Your task to perform on an android device: check battery use Image 0: 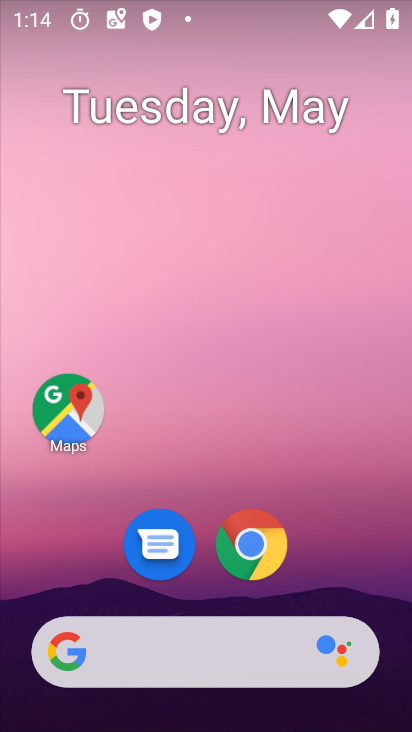
Step 0: drag from (128, 730) to (103, 46)
Your task to perform on an android device: check battery use Image 1: 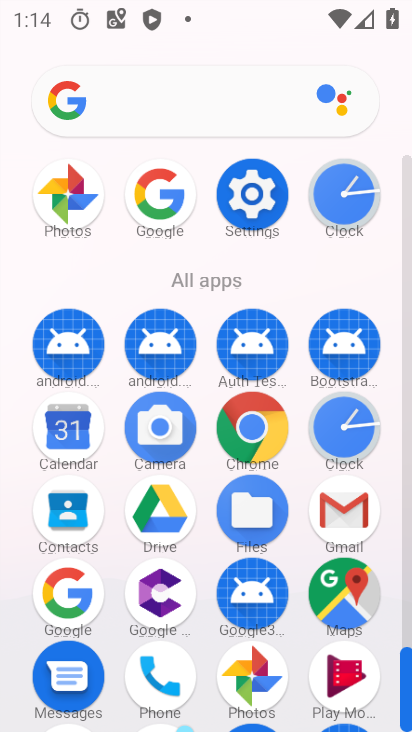
Step 1: click (262, 216)
Your task to perform on an android device: check battery use Image 2: 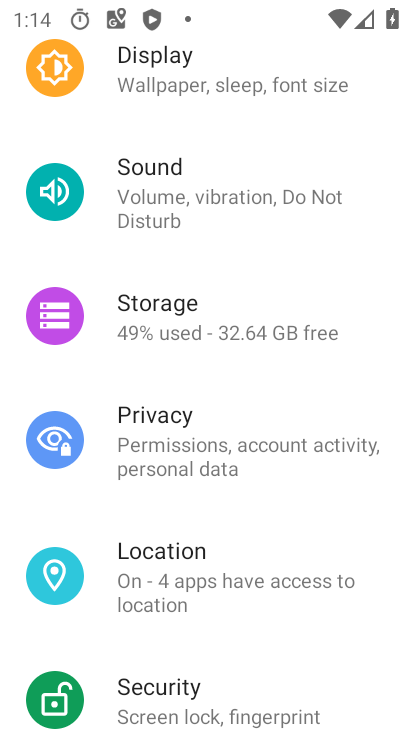
Step 2: drag from (217, 150) to (190, 635)
Your task to perform on an android device: check battery use Image 3: 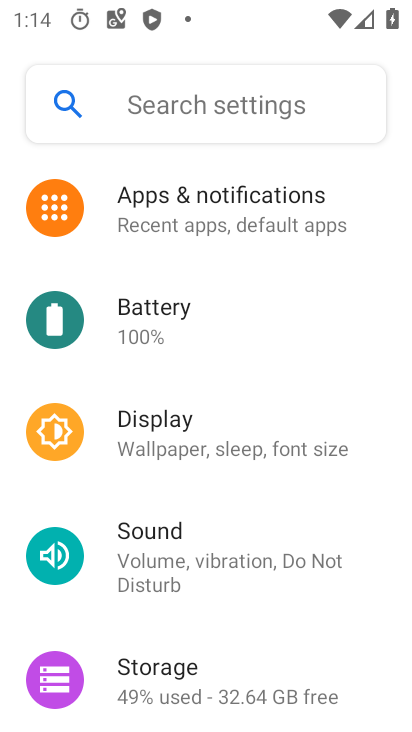
Step 3: click (173, 346)
Your task to perform on an android device: check battery use Image 4: 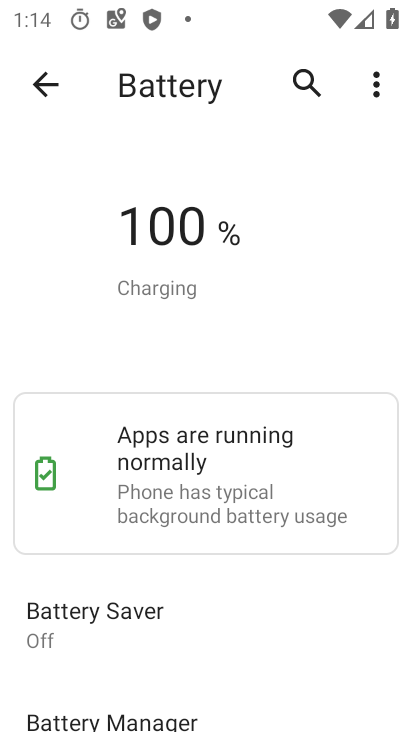
Step 4: click (375, 82)
Your task to perform on an android device: check battery use Image 5: 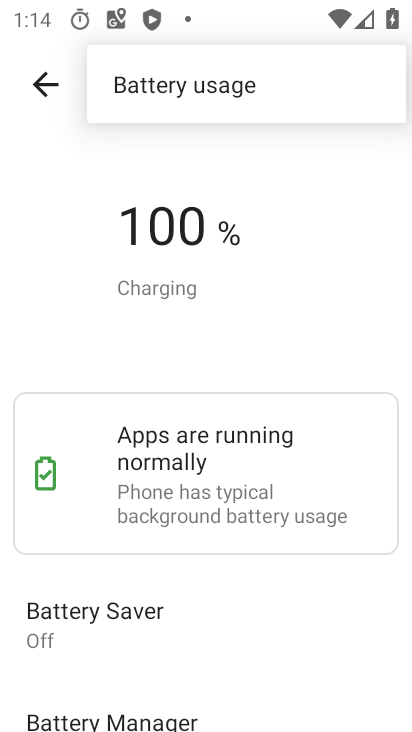
Step 5: click (229, 87)
Your task to perform on an android device: check battery use Image 6: 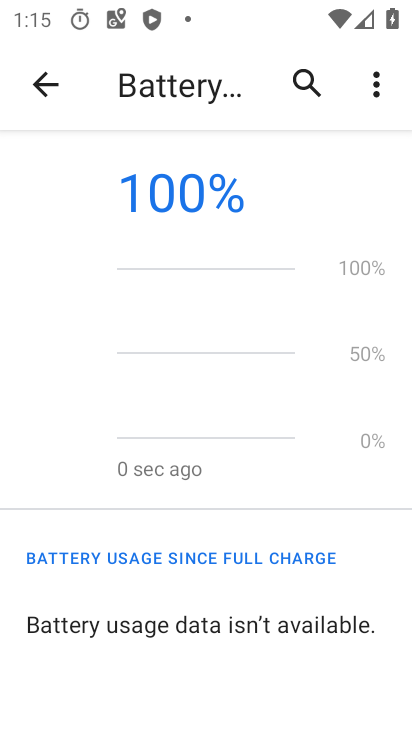
Step 6: task complete